Your task to perform on an android device: Go to battery settings Image 0: 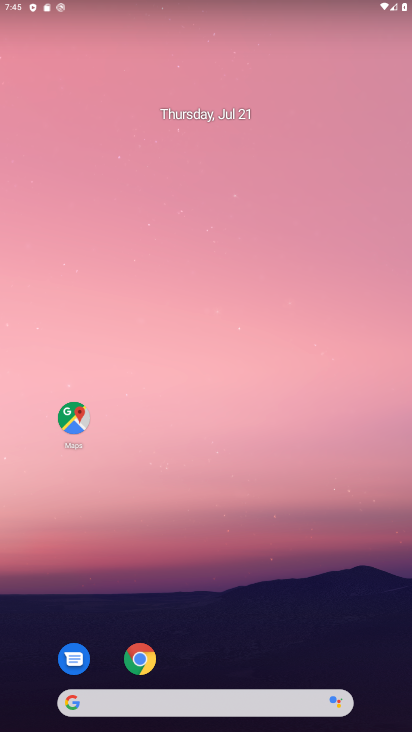
Step 0: drag from (249, 662) to (165, 197)
Your task to perform on an android device: Go to battery settings Image 1: 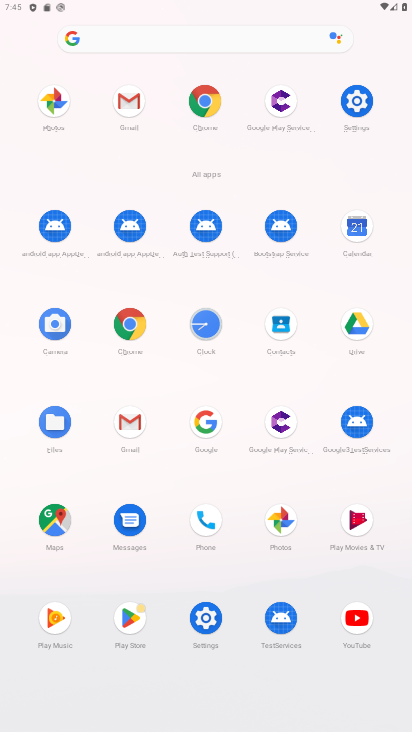
Step 1: click (360, 103)
Your task to perform on an android device: Go to battery settings Image 2: 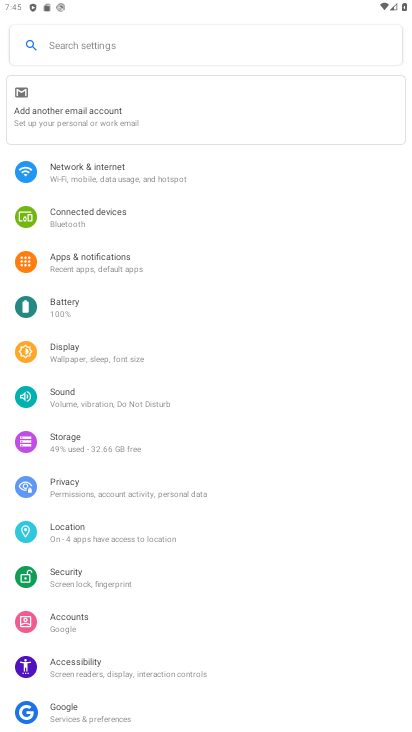
Step 2: click (80, 303)
Your task to perform on an android device: Go to battery settings Image 3: 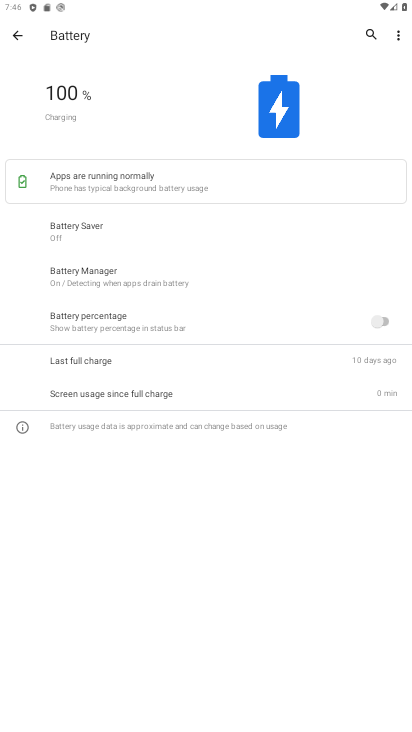
Step 3: task complete